Your task to perform on an android device: turn off translation in the chrome app Image 0: 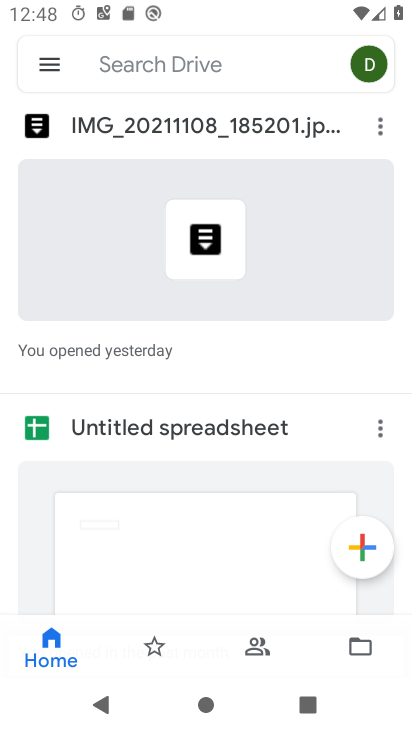
Step 0: press home button
Your task to perform on an android device: turn off translation in the chrome app Image 1: 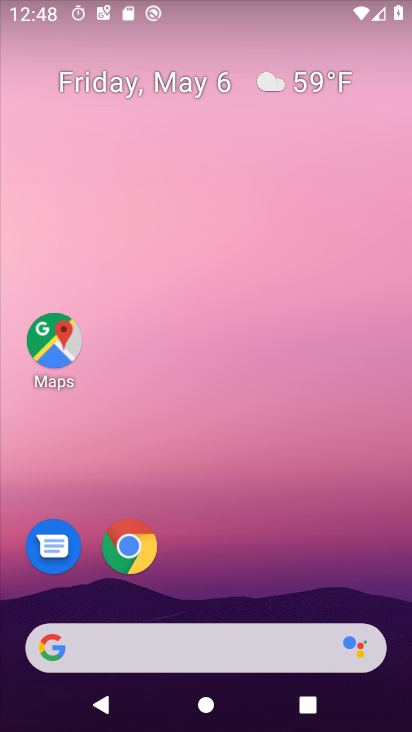
Step 1: click (142, 553)
Your task to perform on an android device: turn off translation in the chrome app Image 2: 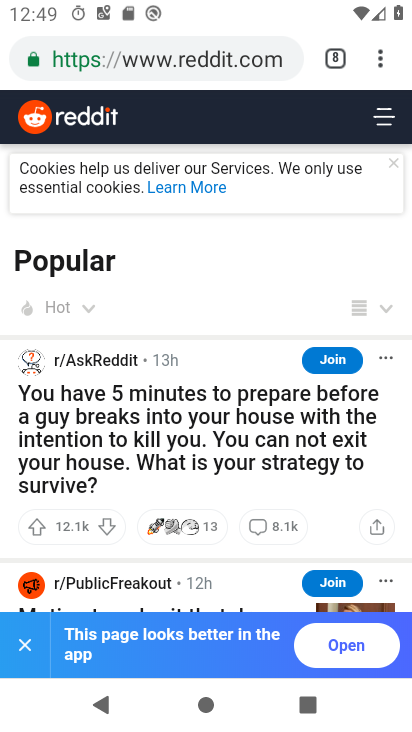
Step 2: click (383, 59)
Your task to perform on an android device: turn off translation in the chrome app Image 3: 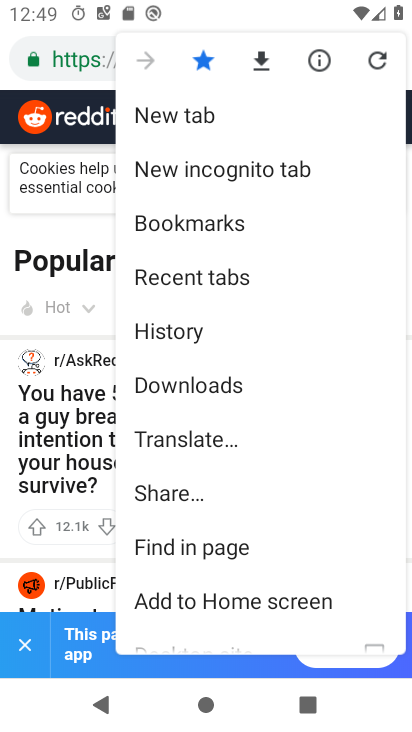
Step 3: drag from (220, 560) to (218, 281)
Your task to perform on an android device: turn off translation in the chrome app Image 4: 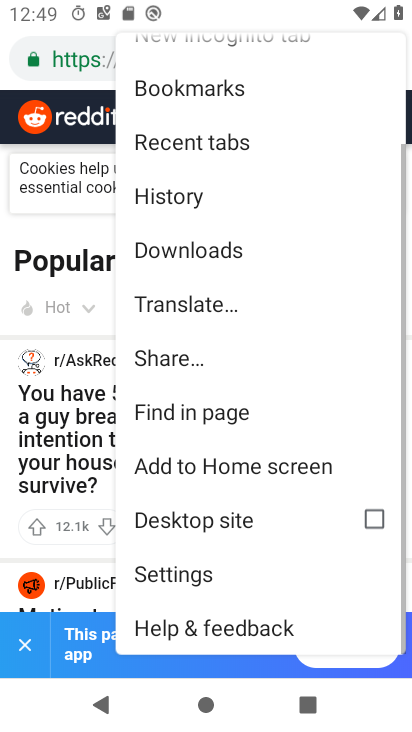
Step 4: click (236, 576)
Your task to perform on an android device: turn off translation in the chrome app Image 5: 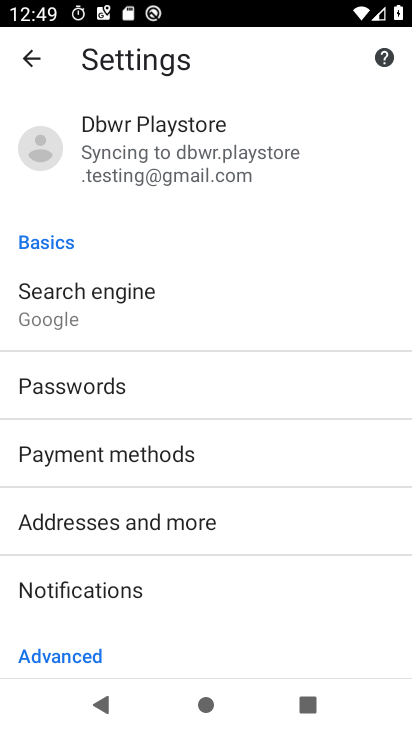
Step 5: drag from (224, 624) to (205, 316)
Your task to perform on an android device: turn off translation in the chrome app Image 6: 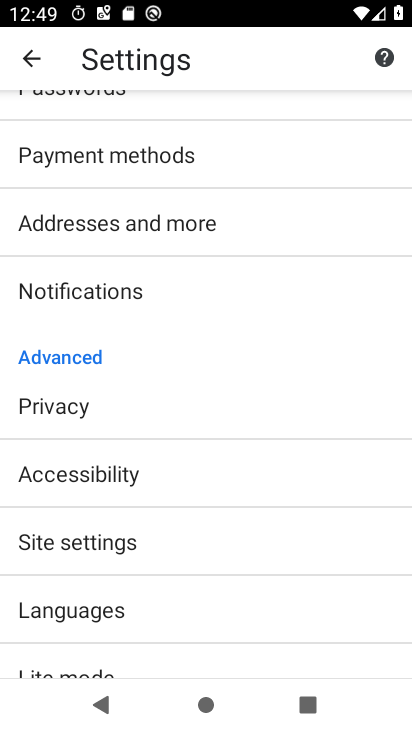
Step 6: click (125, 609)
Your task to perform on an android device: turn off translation in the chrome app Image 7: 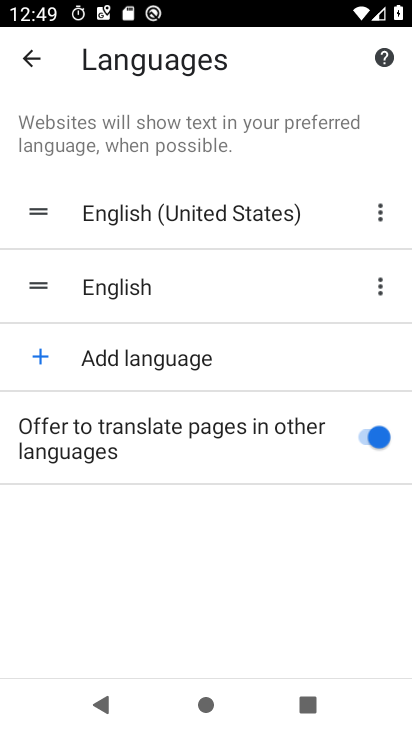
Step 7: click (359, 439)
Your task to perform on an android device: turn off translation in the chrome app Image 8: 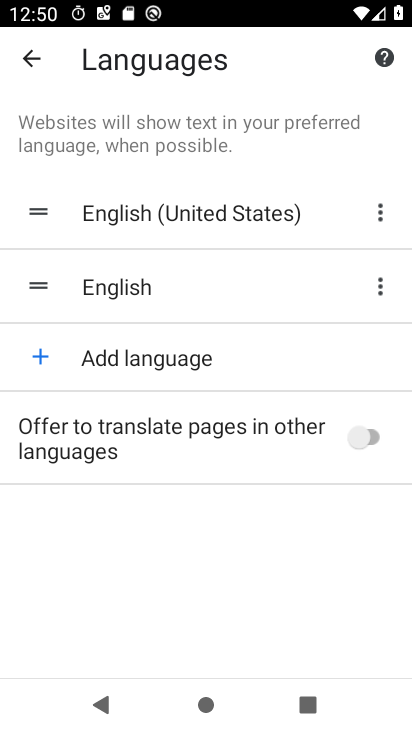
Step 8: task complete